Your task to perform on an android device: Empty the shopping cart on target. Add amazon basics triple a to the cart on target Image 0: 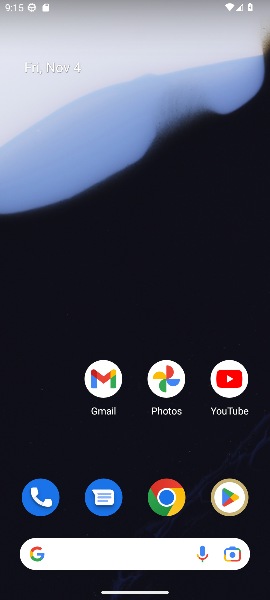
Step 0: click (169, 495)
Your task to perform on an android device: Empty the shopping cart on target. Add amazon basics triple a to the cart on target Image 1: 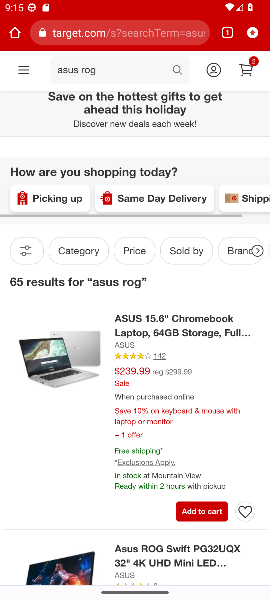
Step 1: click (245, 63)
Your task to perform on an android device: Empty the shopping cart on target. Add amazon basics triple a to the cart on target Image 2: 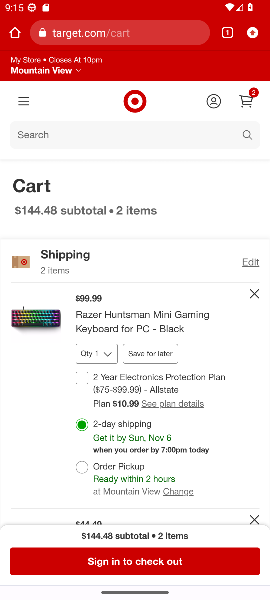
Step 2: click (258, 288)
Your task to perform on an android device: Empty the shopping cart on target. Add amazon basics triple a to the cart on target Image 3: 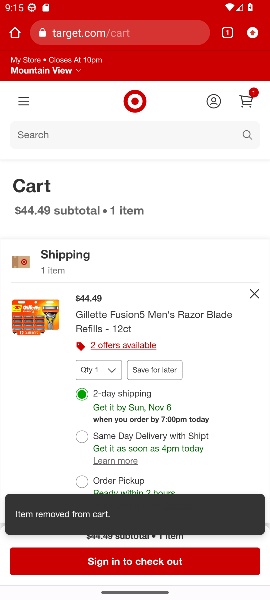
Step 3: click (259, 291)
Your task to perform on an android device: Empty the shopping cart on target. Add amazon basics triple a to the cart on target Image 4: 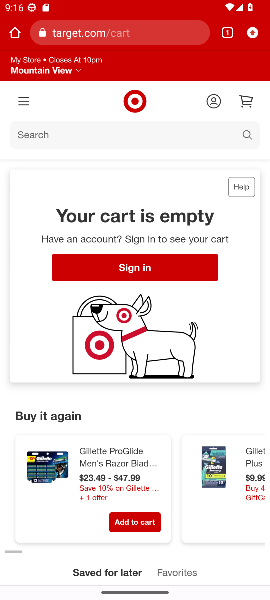
Step 4: click (238, 135)
Your task to perform on an android device: Empty the shopping cart on target. Add amazon basics triple a to the cart on target Image 5: 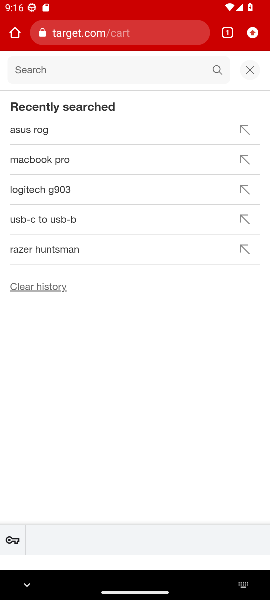
Step 5: type "amazon basics triple a "
Your task to perform on an android device: Empty the shopping cart on target. Add amazon basics triple a to the cart on target Image 6: 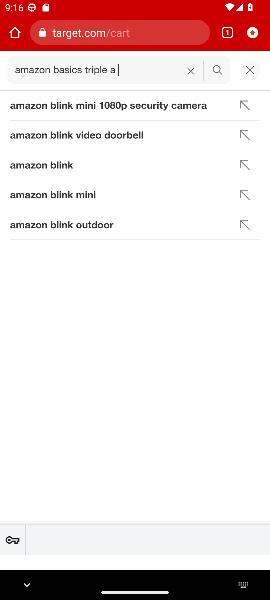
Step 6: click (220, 71)
Your task to perform on an android device: Empty the shopping cart on target. Add amazon basics triple a to the cart on target Image 7: 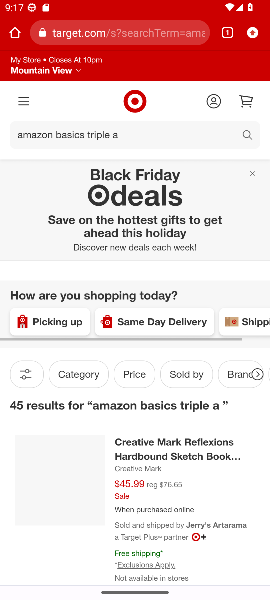
Step 7: task complete